Your task to perform on an android device: set an alarm Image 0: 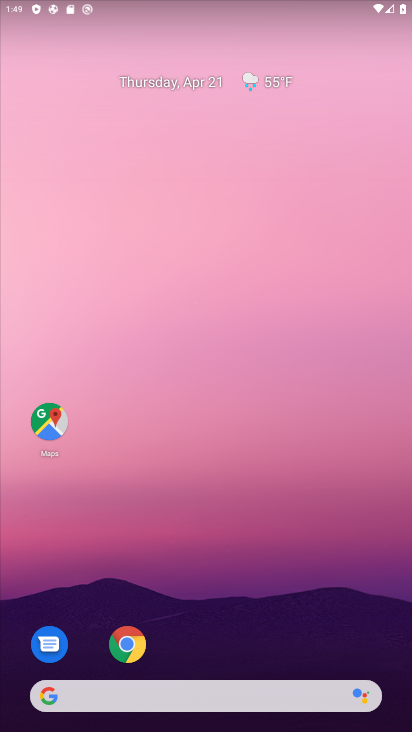
Step 0: drag from (230, 655) to (170, 132)
Your task to perform on an android device: set an alarm Image 1: 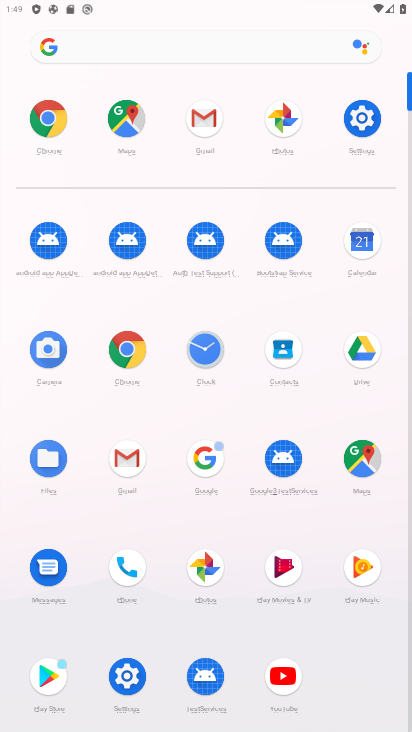
Step 1: click (207, 348)
Your task to perform on an android device: set an alarm Image 2: 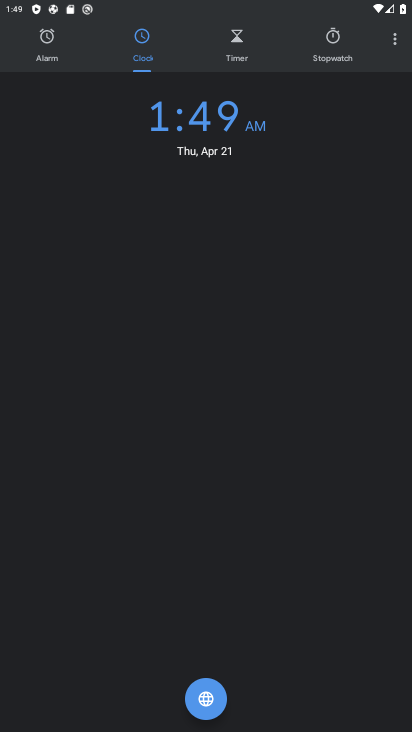
Step 2: click (49, 51)
Your task to perform on an android device: set an alarm Image 3: 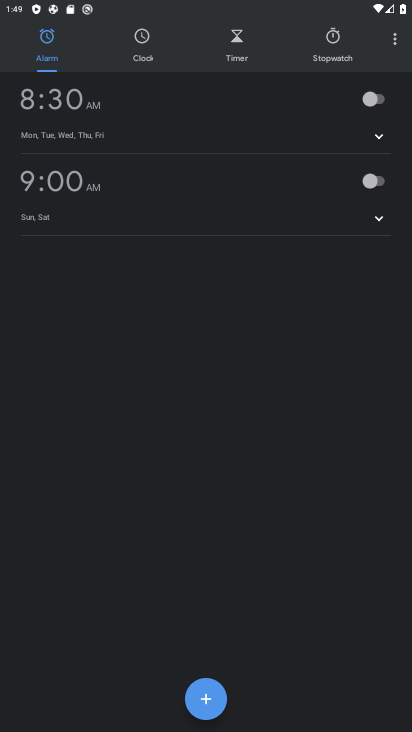
Step 3: click (212, 697)
Your task to perform on an android device: set an alarm Image 4: 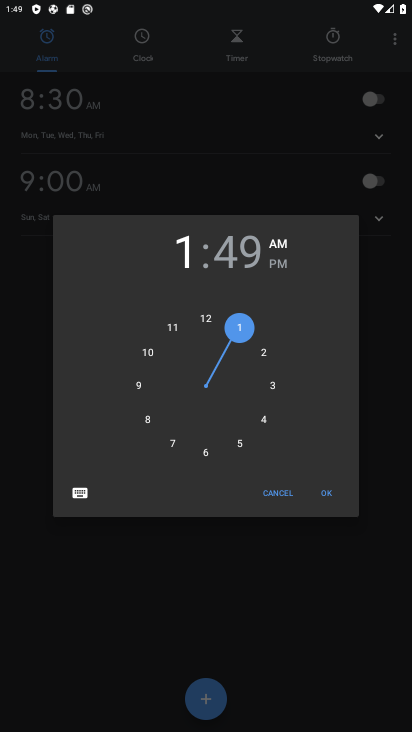
Step 4: click (208, 459)
Your task to perform on an android device: set an alarm Image 5: 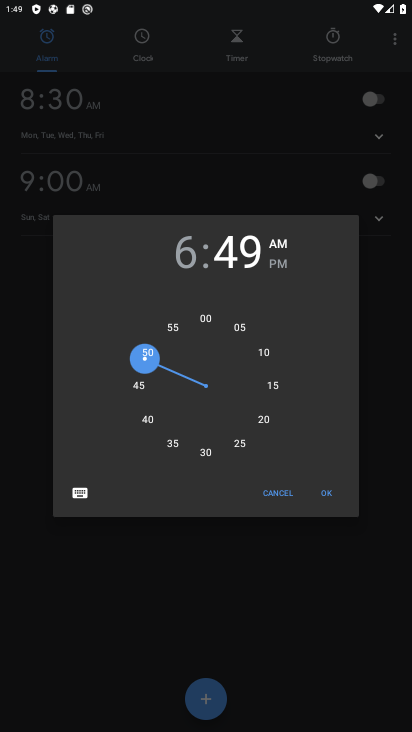
Step 5: click (333, 503)
Your task to perform on an android device: set an alarm Image 6: 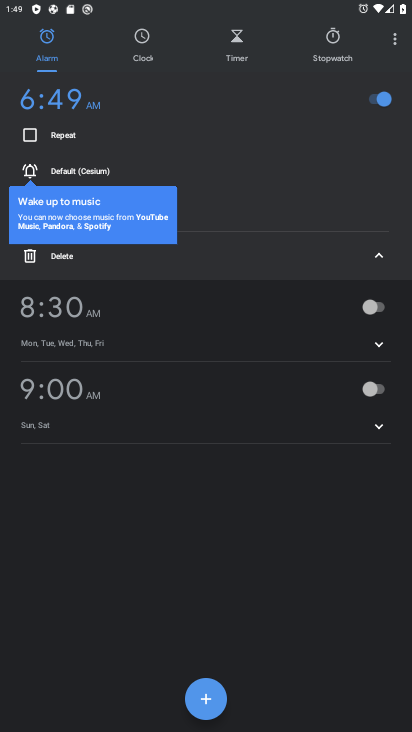
Step 6: task complete